Your task to perform on an android device: turn off improve location accuracy Image 0: 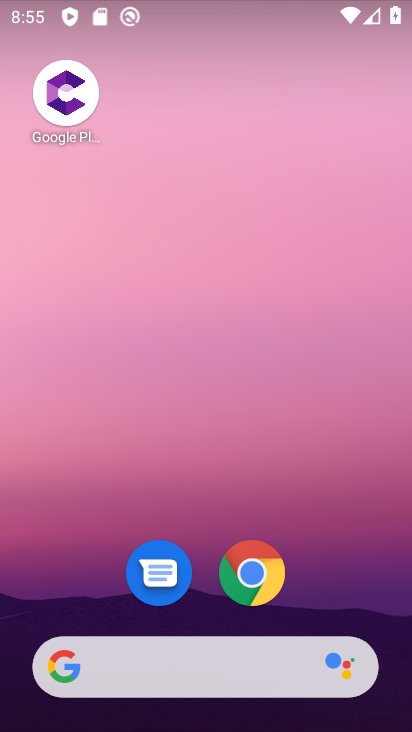
Step 0: drag from (220, 614) to (227, 197)
Your task to perform on an android device: turn off improve location accuracy Image 1: 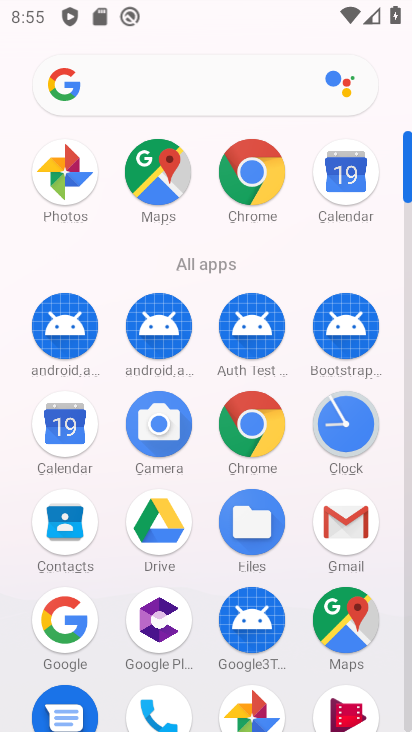
Step 1: drag from (121, 583) to (165, 251)
Your task to perform on an android device: turn off improve location accuracy Image 2: 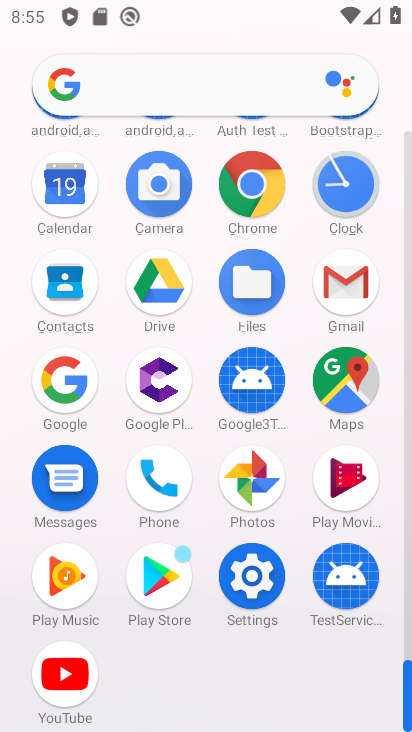
Step 2: click (257, 559)
Your task to perform on an android device: turn off improve location accuracy Image 3: 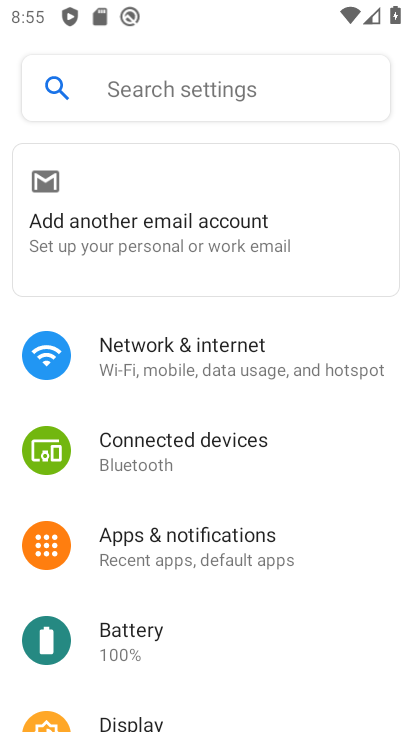
Step 3: drag from (208, 662) to (211, 484)
Your task to perform on an android device: turn off improve location accuracy Image 4: 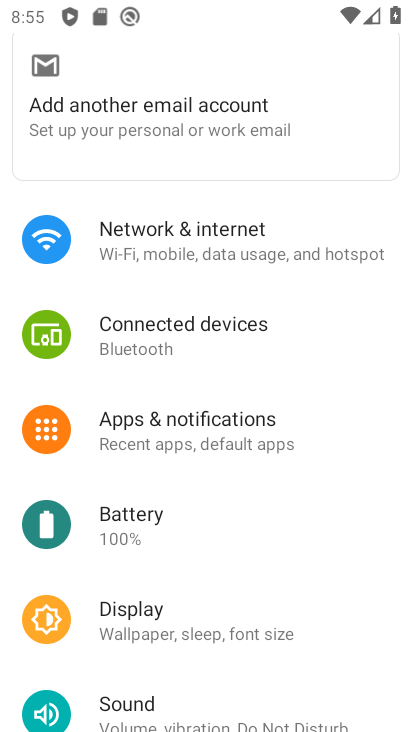
Step 4: drag from (238, 637) to (237, 404)
Your task to perform on an android device: turn off improve location accuracy Image 5: 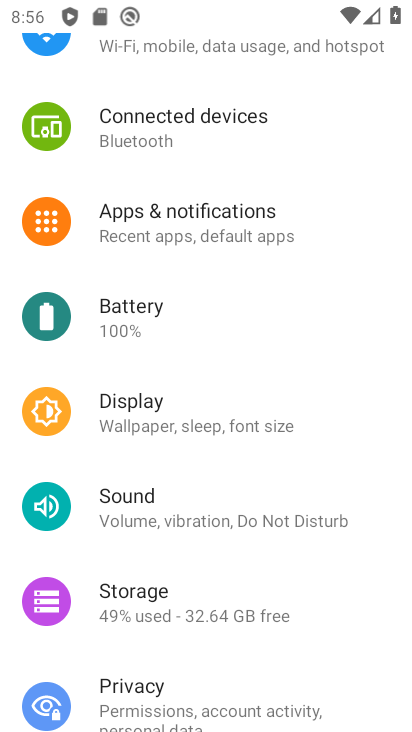
Step 5: drag from (174, 672) to (191, 427)
Your task to perform on an android device: turn off improve location accuracy Image 6: 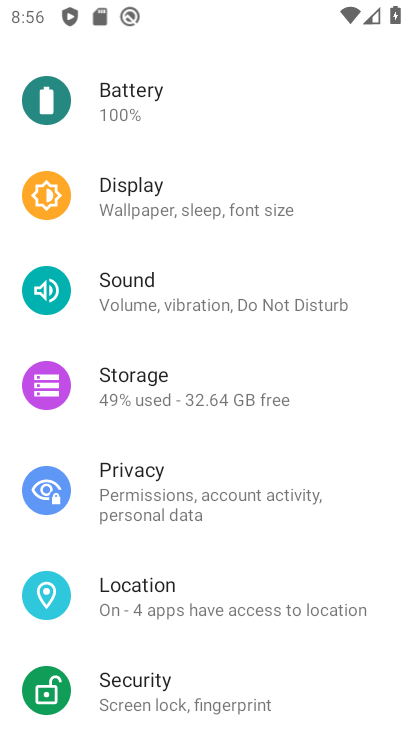
Step 6: click (184, 593)
Your task to perform on an android device: turn off improve location accuracy Image 7: 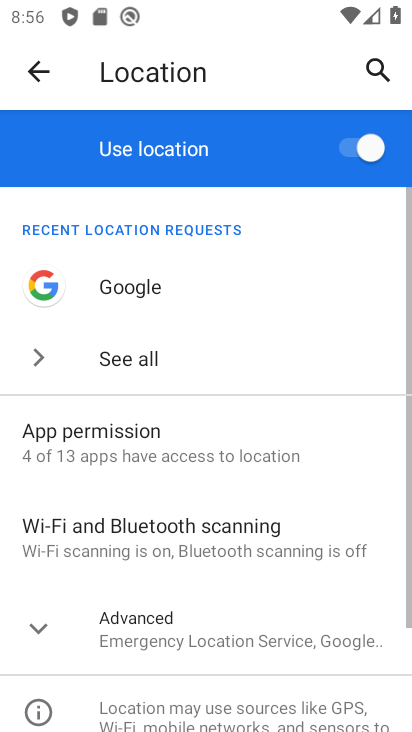
Step 7: drag from (218, 652) to (231, 487)
Your task to perform on an android device: turn off improve location accuracy Image 8: 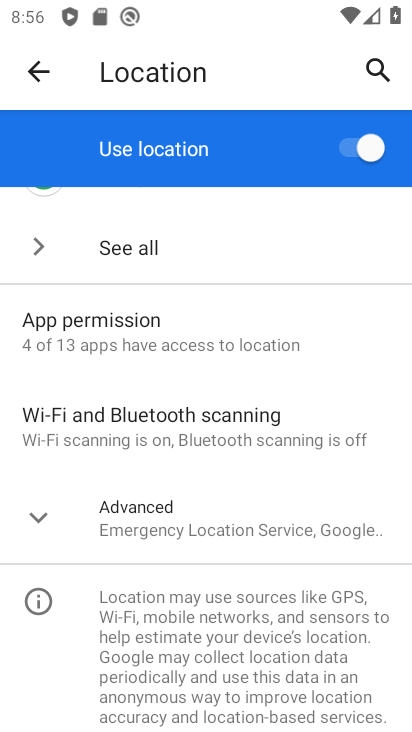
Step 8: click (226, 526)
Your task to perform on an android device: turn off improve location accuracy Image 9: 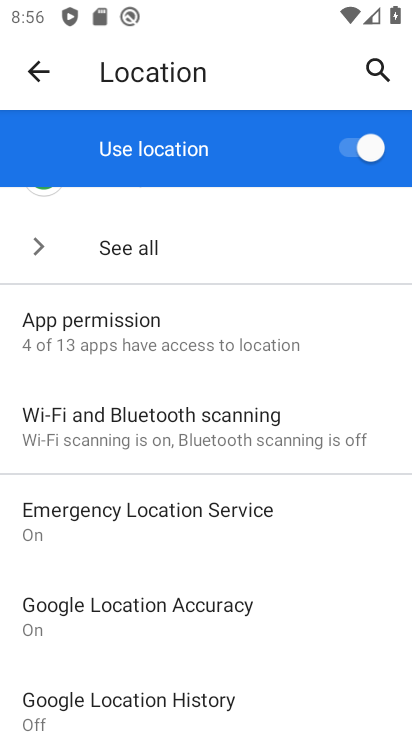
Step 9: drag from (246, 660) to (244, 563)
Your task to perform on an android device: turn off improve location accuracy Image 10: 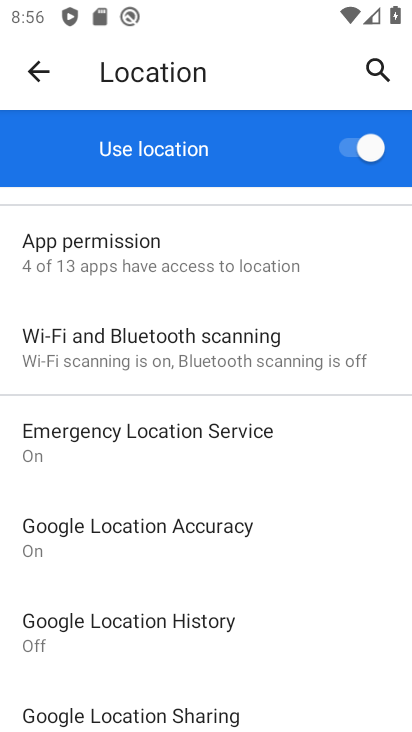
Step 10: click (196, 539)
Your task to perform on an android device: turn off improve location accuracy Image 11: 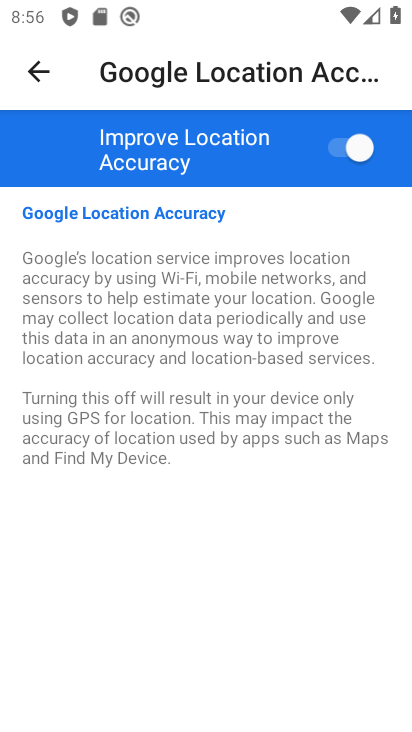
Step 11: task complete